Your task to perform on an android device: turn on bluetooth scan Image 0: 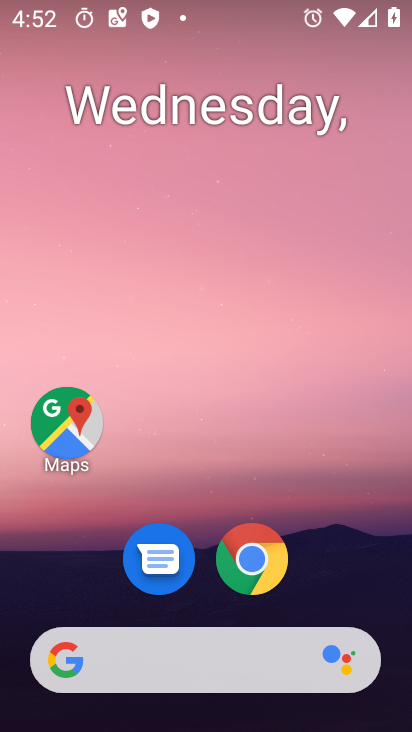
Step 0: drag from (389, 567) to (269, 107)
Your task to perform on an android device: turn on bluetooth scan Image 1: 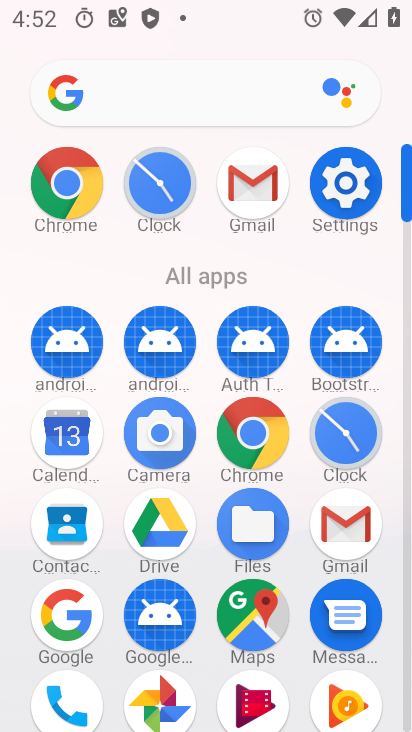
Step 1: click (353, 186)
Your task to perform on an android device: turn on bluetooth scan Image 2: 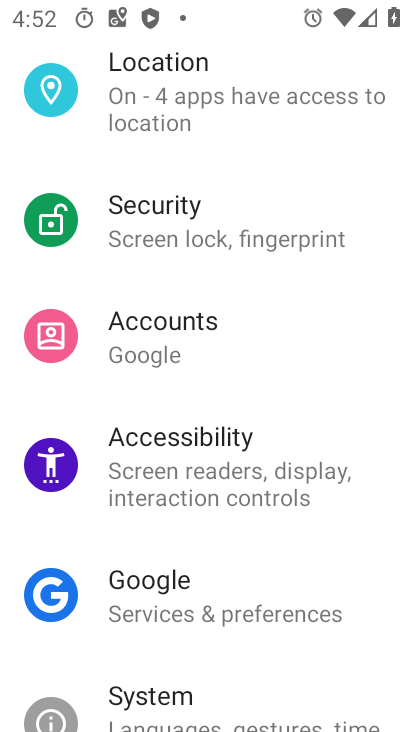
Step 2: drag from (271, 169) to (267, 404)
Your task to perform on an android device: turn on bluetooth scan Image 3: 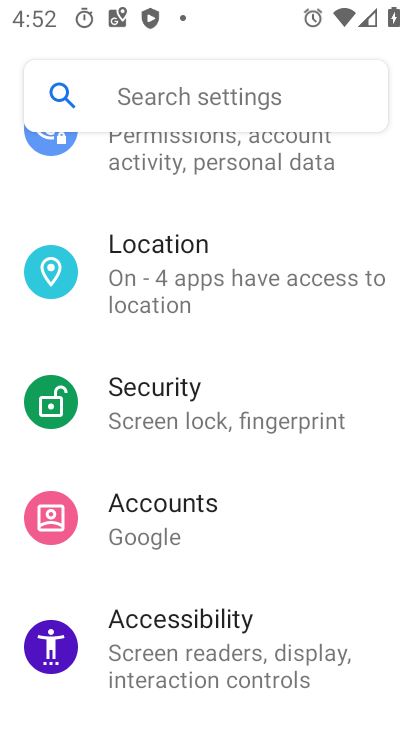
Step 3: click (231, 297)
Your task to perform on an android device: turn on bluetooth scan Image 4: 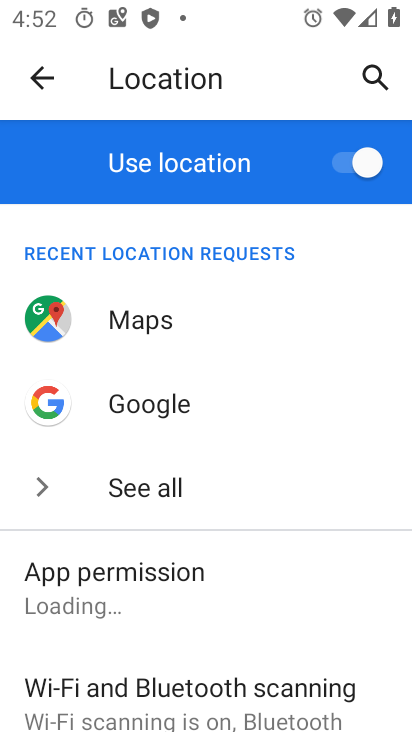
Step 4: click (269, 677)
Your task to perform on an android device: turn on bluetooth scan Image 5: 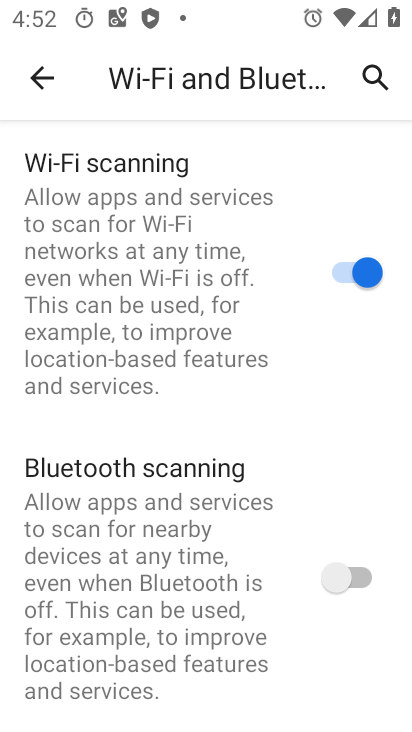
Step 5: click (353, 580)
Your task to perform on an android device: turn on bluetooth scan Image 6: 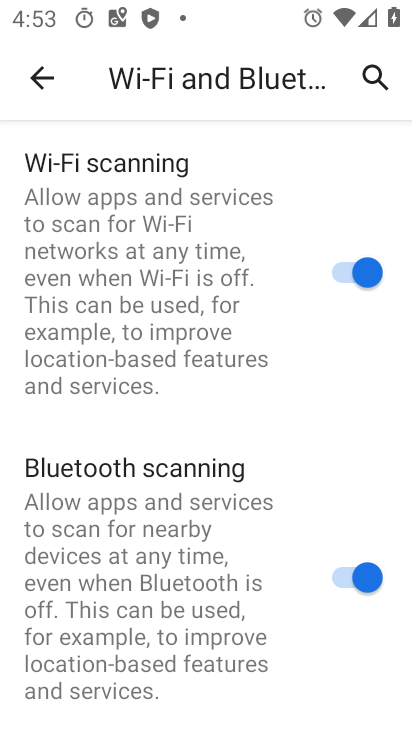
Step 6: task complete